Your task to perform on an android device: change the clock style Image 0: 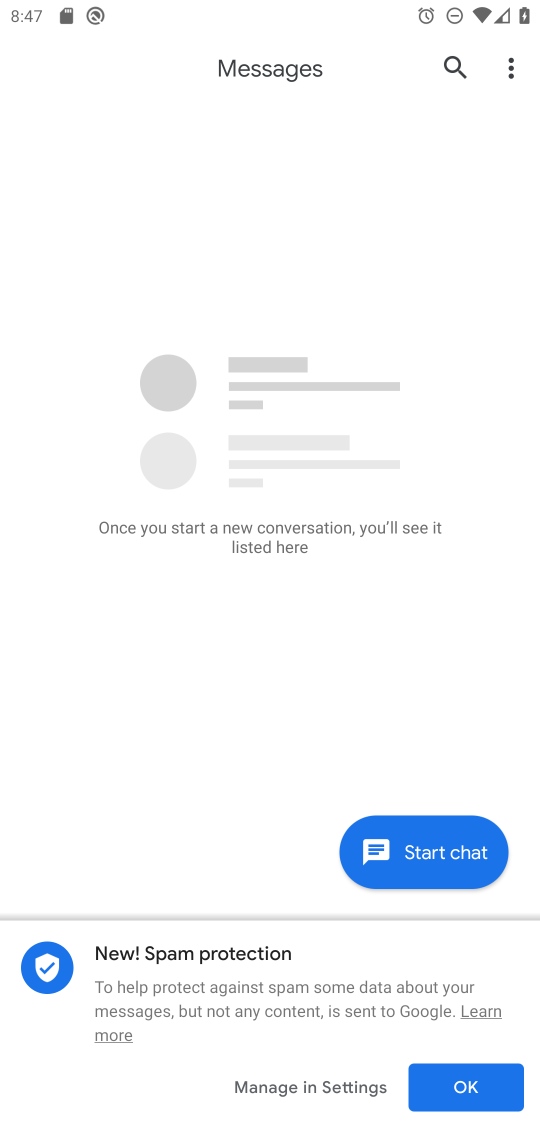
Step 0: press home button
Your task to perform on an android device: change the clock style Image 1: 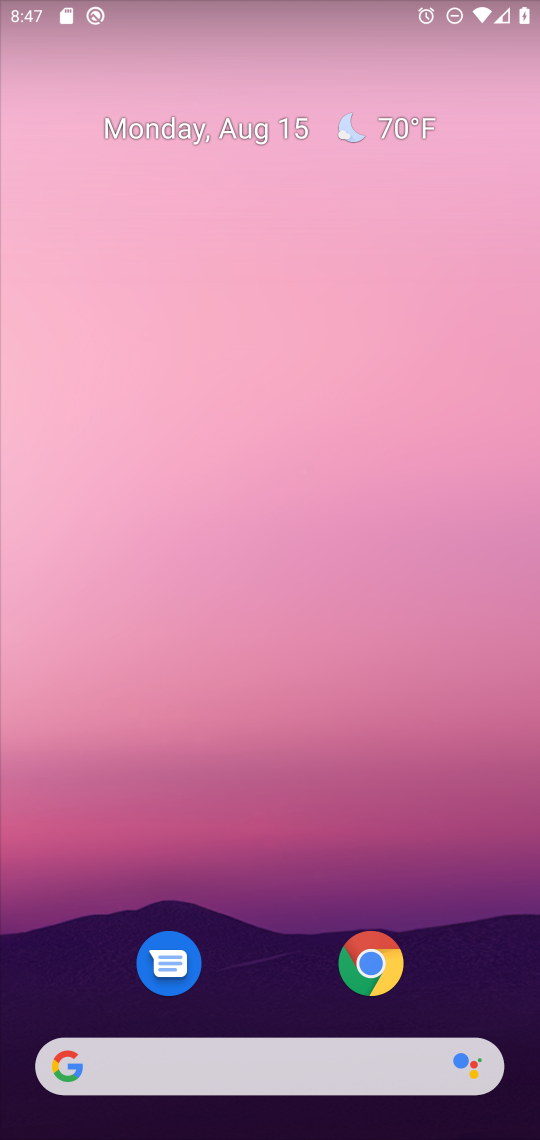
Step 1: drag from (250, 986) to (154, 52)
Your task to perform on an android device: change the clock style Image 2: 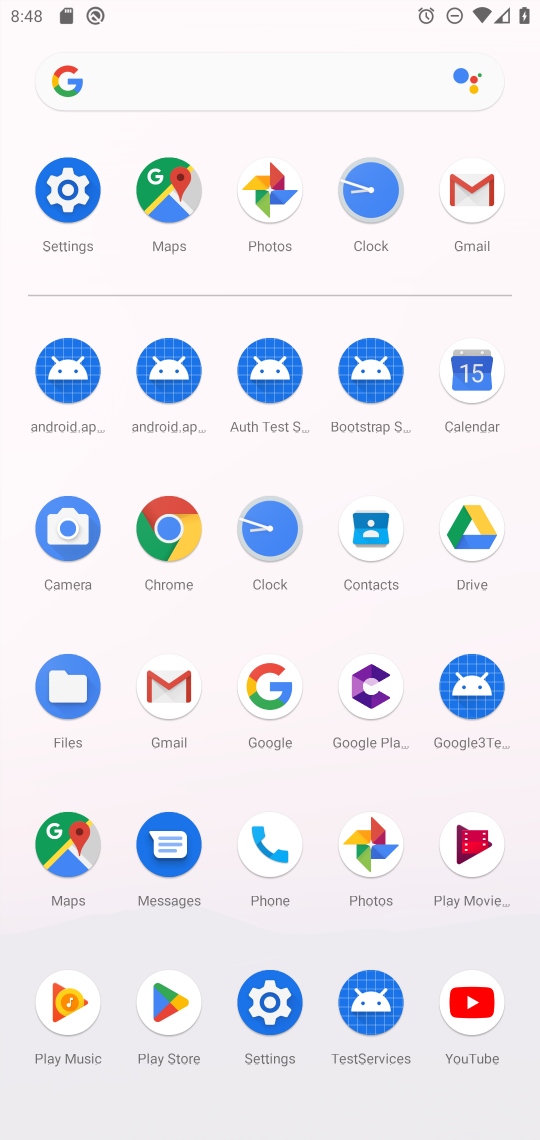
Step 2: click (283, 522)
Your task to perform on an android device: change the clock style Image 3: 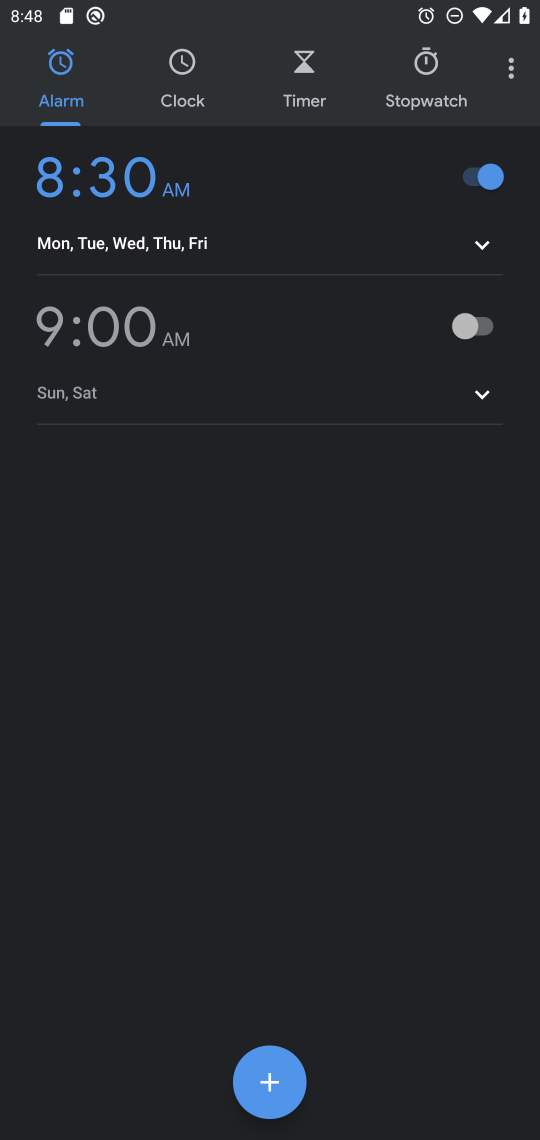
Step 3: click (531, 68)
Your task to perform on an android device: change the clock style Image 4: 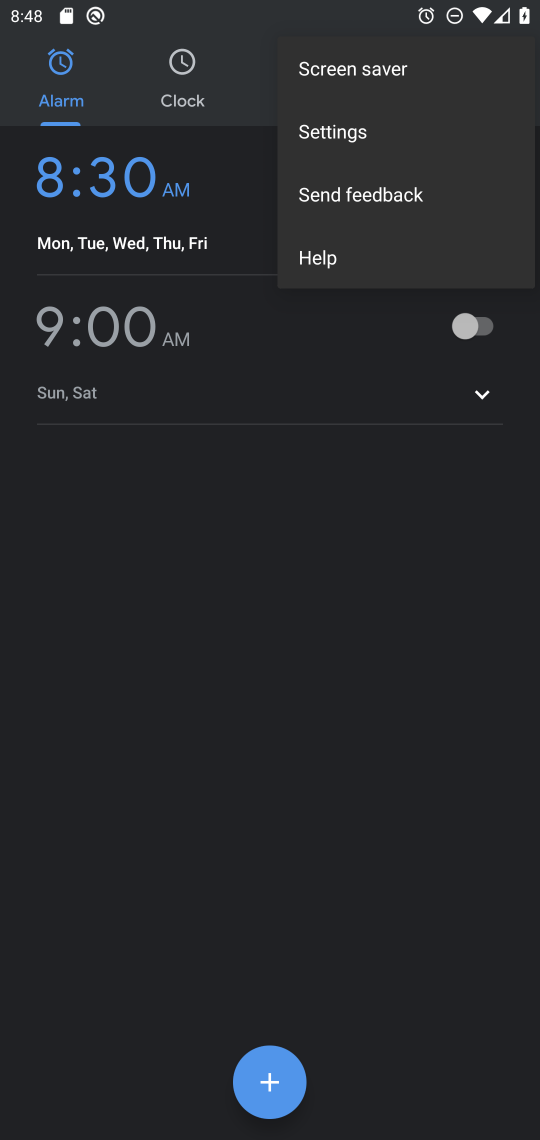
Step 4: click (428, 158)
Your task to perform on an android device: change the clock style Image 5: 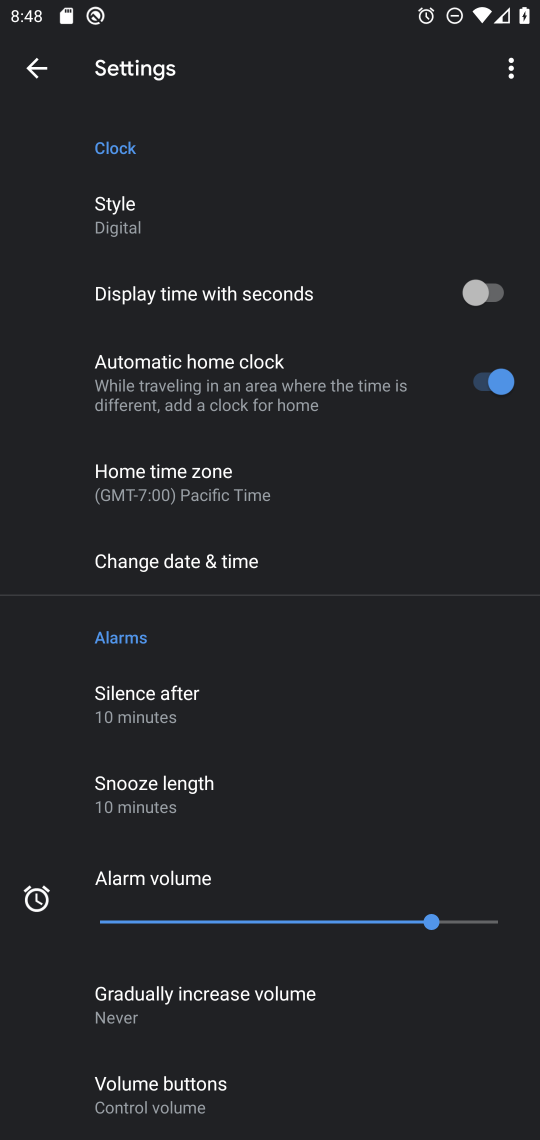
Step 5: click (167, 223)
Your task to perform on an android device: change the clock style Image 6: 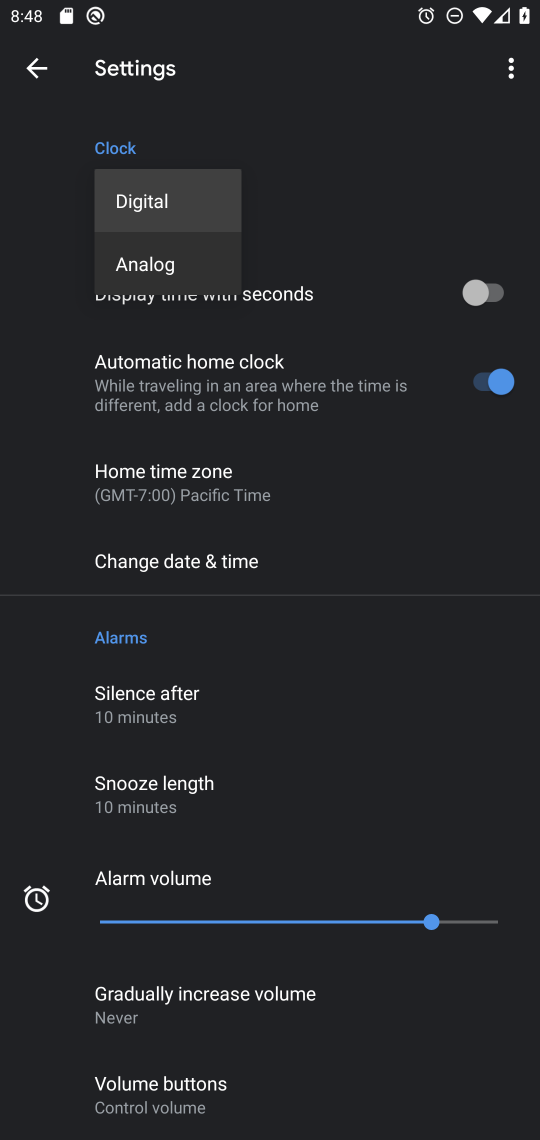
Step 6: click (169, 301)
Your task to perform on an android device: change the clock style Image 7: 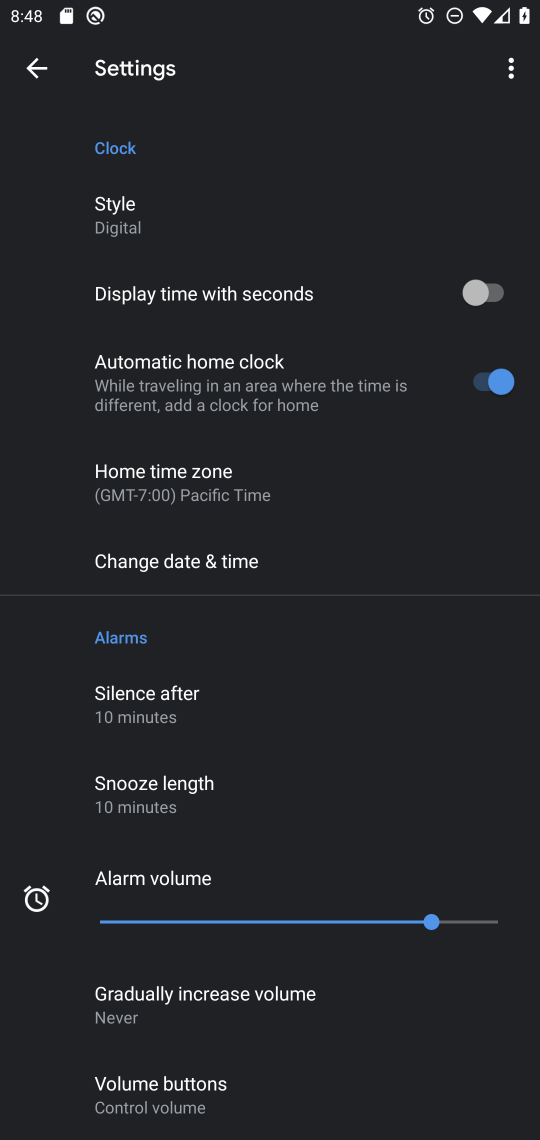
Step 7: click (158, 259)
Your task to perform on an android device: change the clock style Image 8: 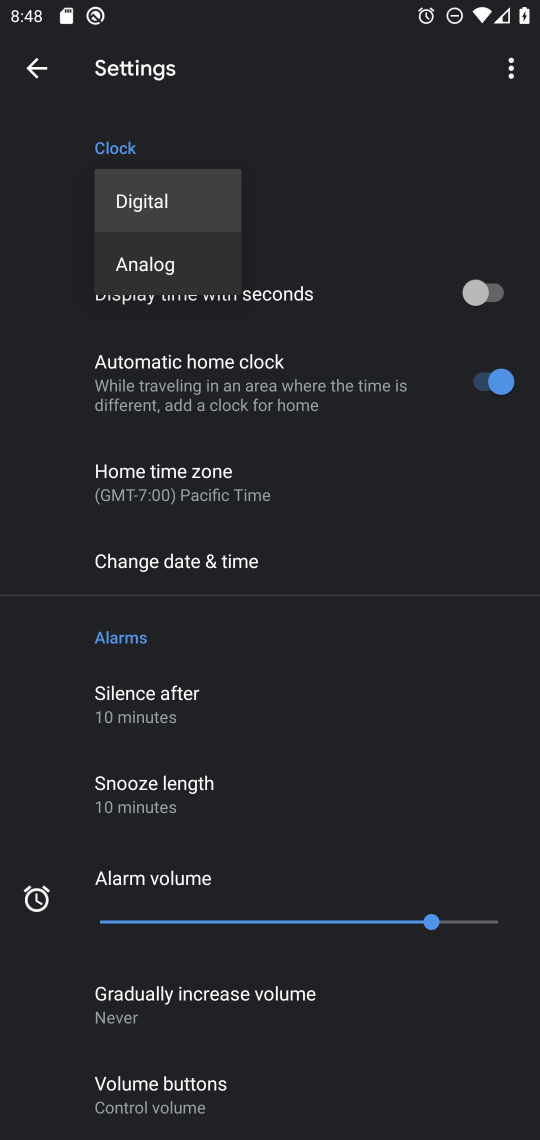
Step 8: click (220, 266)
Your task to perform on an android device: change the clock style Image 9: 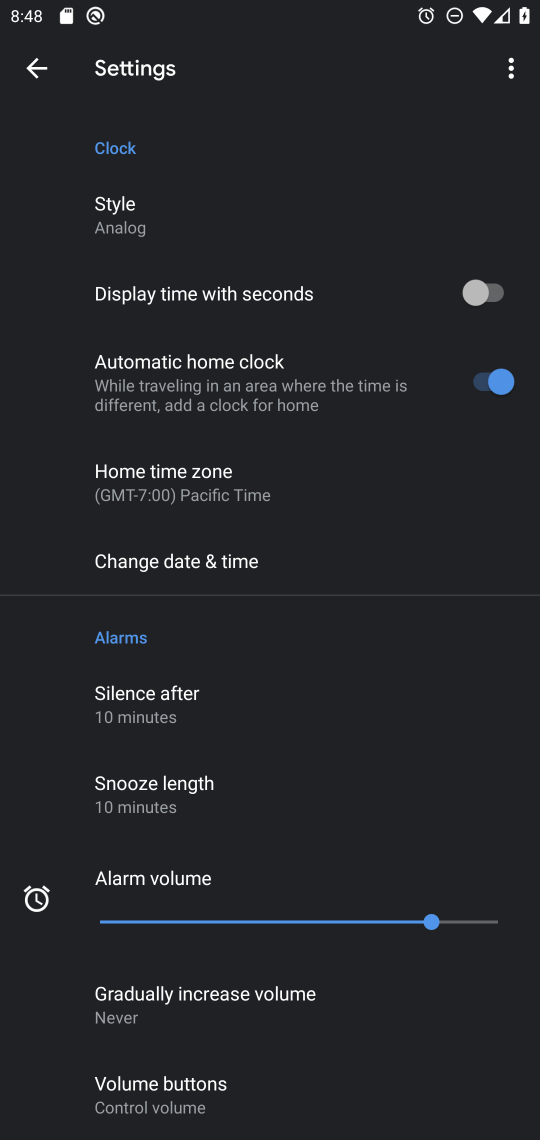
Step 9: task complete